Your task to perform on an android device: open app "Flipkart Online Shopping App" Image 0: 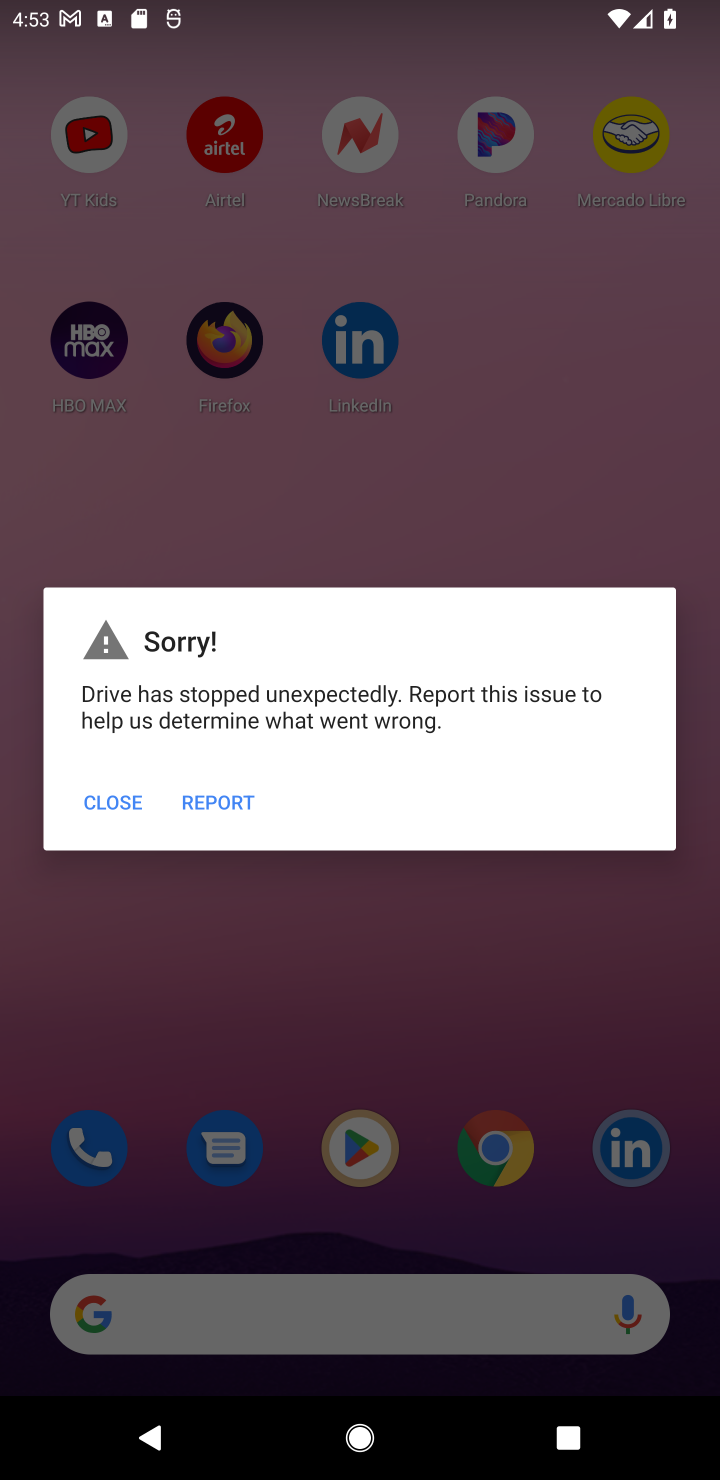
Step 0: press home button
Your task to perform on an android device: open app "Flipkart Online Shopping App" Image 1: 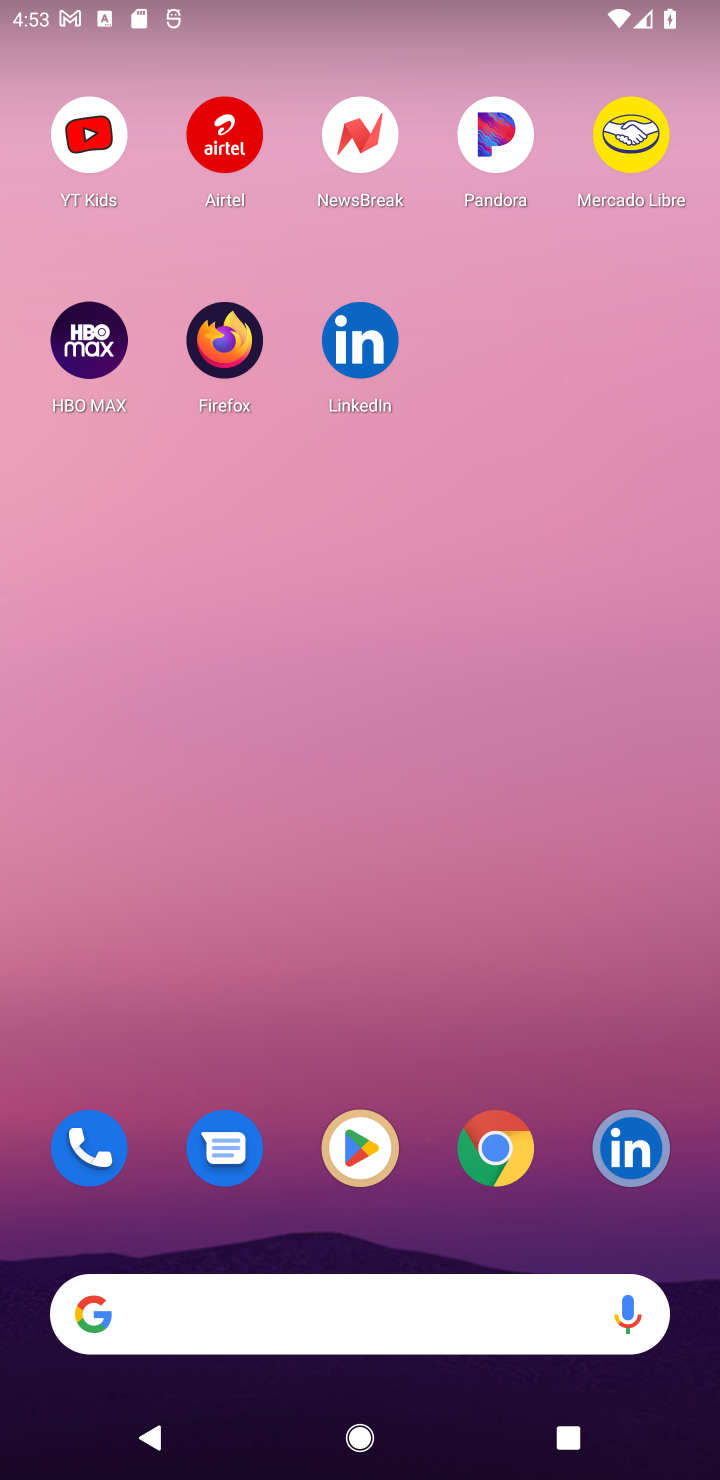
Step 1: click (356, 1157)
Your task to perform on an android device: open app "Flipkart Online Shopping App" Image 2: 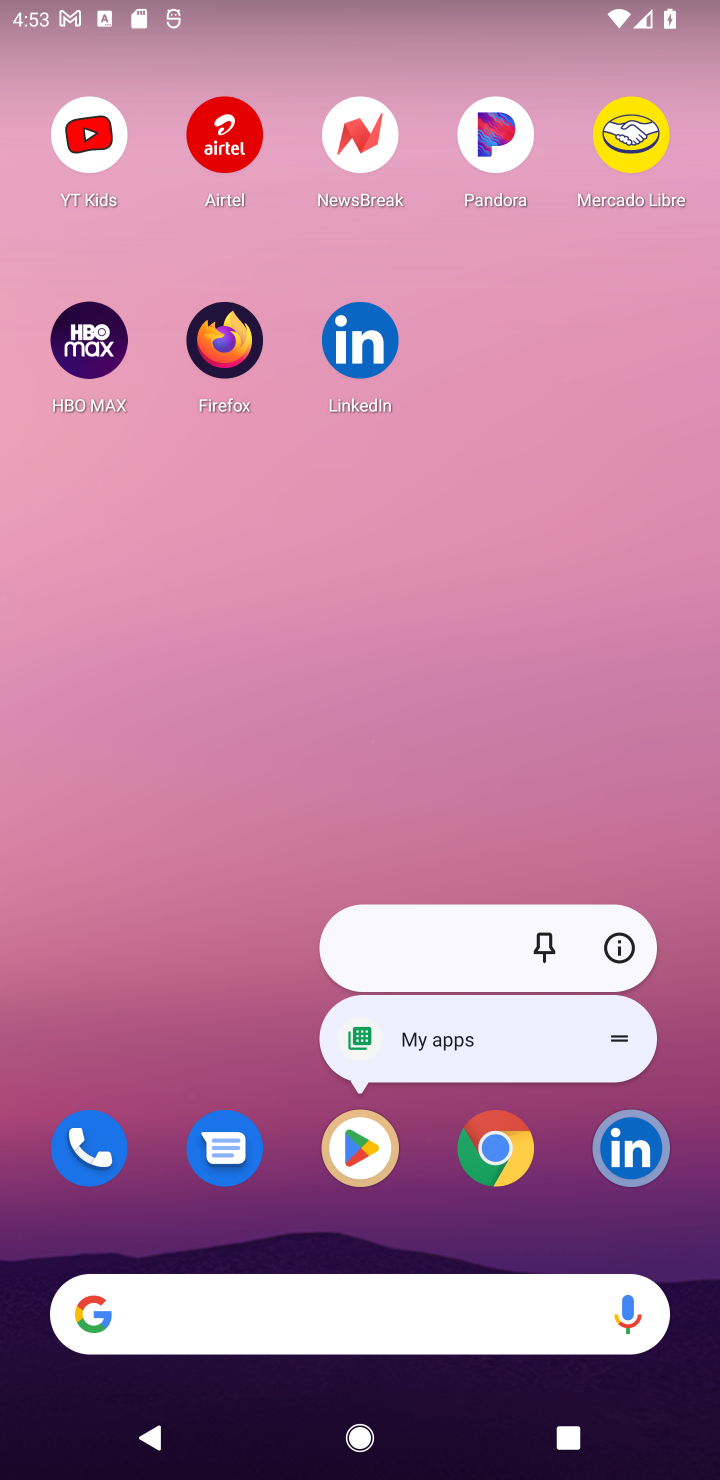
Step 2: click (359, 1156)
Your task to perform on an android device: open app "Flipkart Online Shopping App" Image 3: 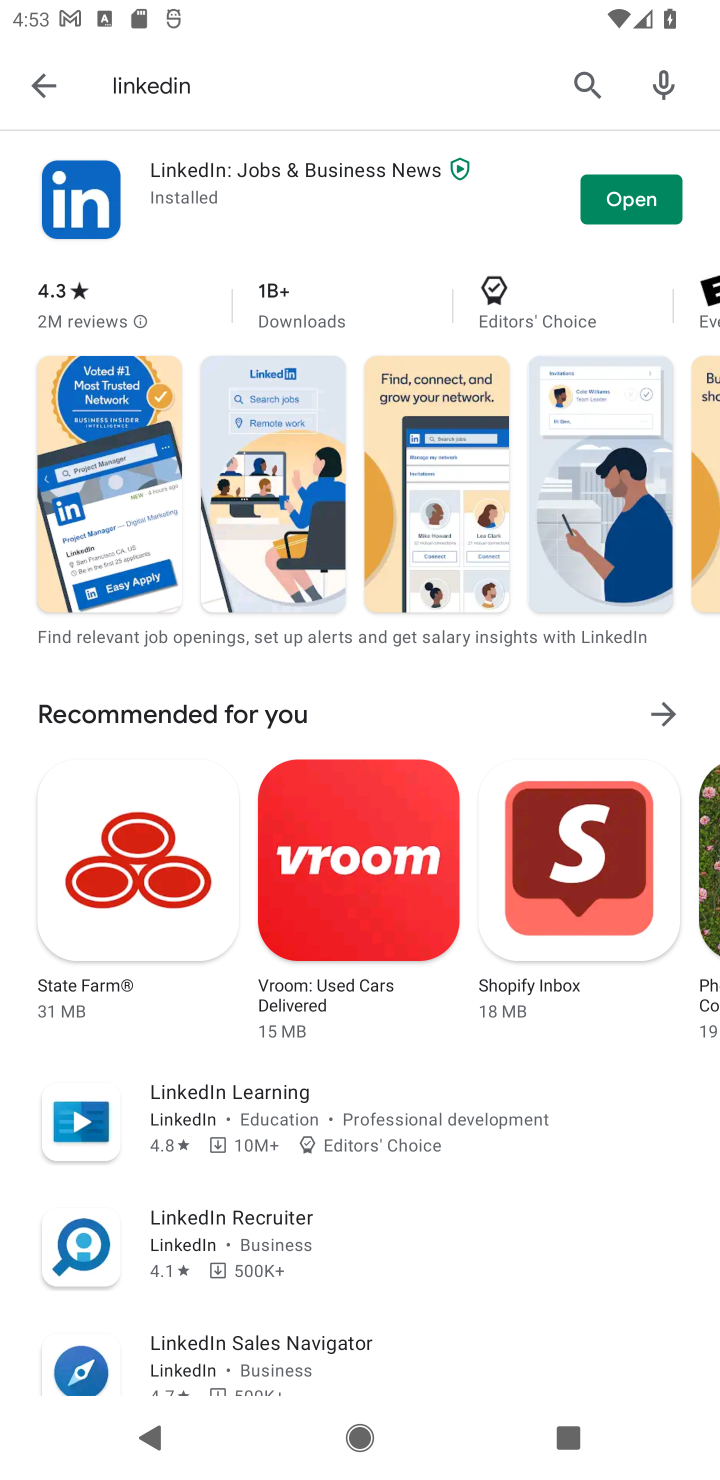
Step 3: click (581, 76)
Your task to perform on an android device: open app "Flipkart Online Shopping App" Image 4: 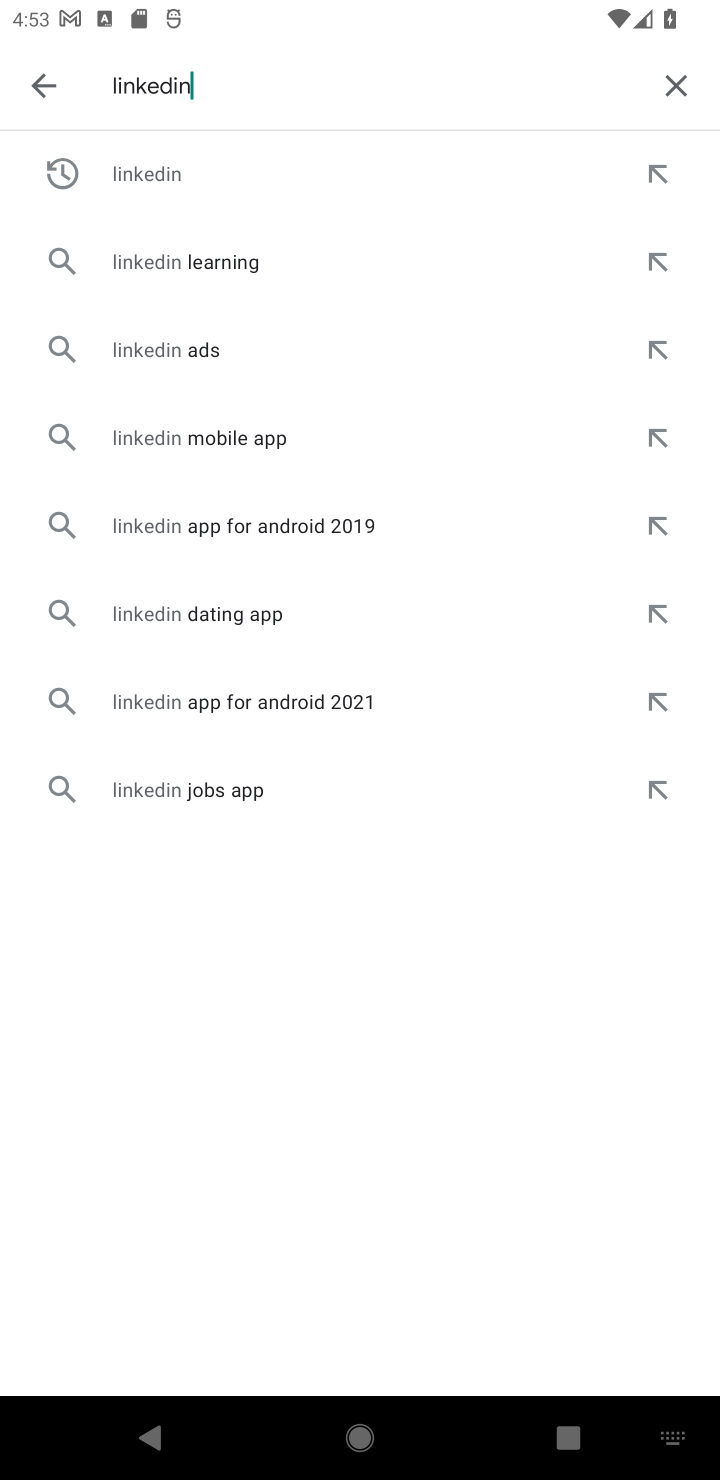
Step 4: click (675, 80)
Your task to perform on an android device: open app "Flipkart Online Shopping App" Image 5: 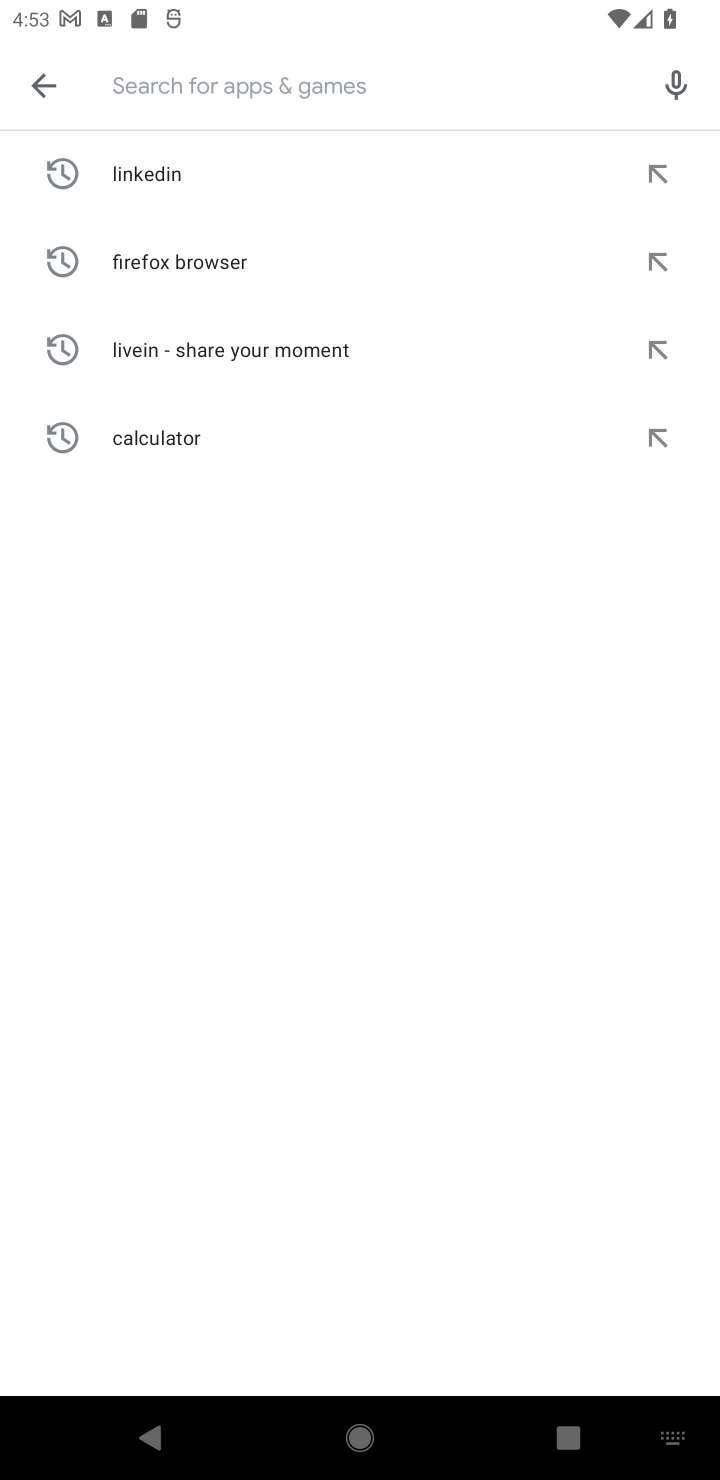
Step 5: type "Flipkart Online Shopping App"
Your task to perform on an android device: open app "Flipkart Online Shopping App" Image 6: 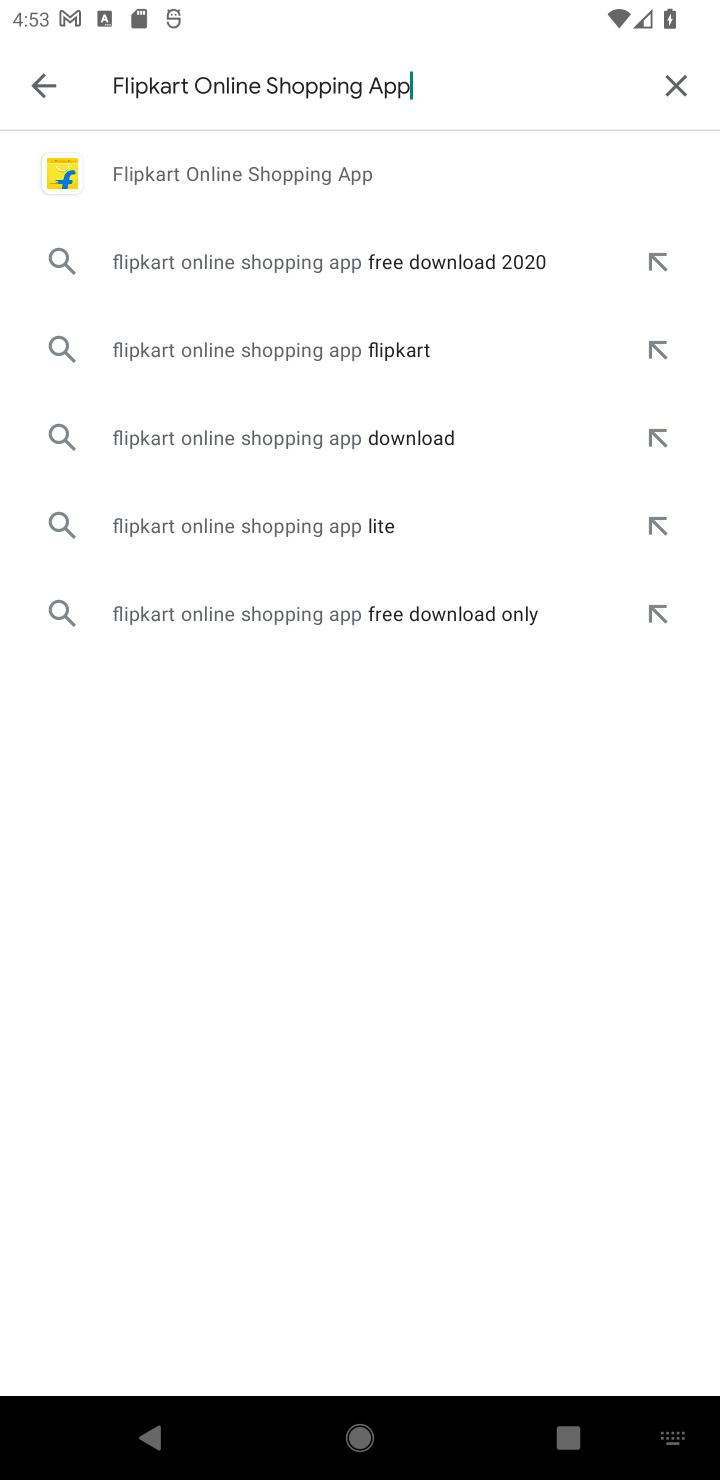
Step 6: click (309, 167)
Your task to perform on an android device: open app "Flipkart Online Shopping App" Image 7: 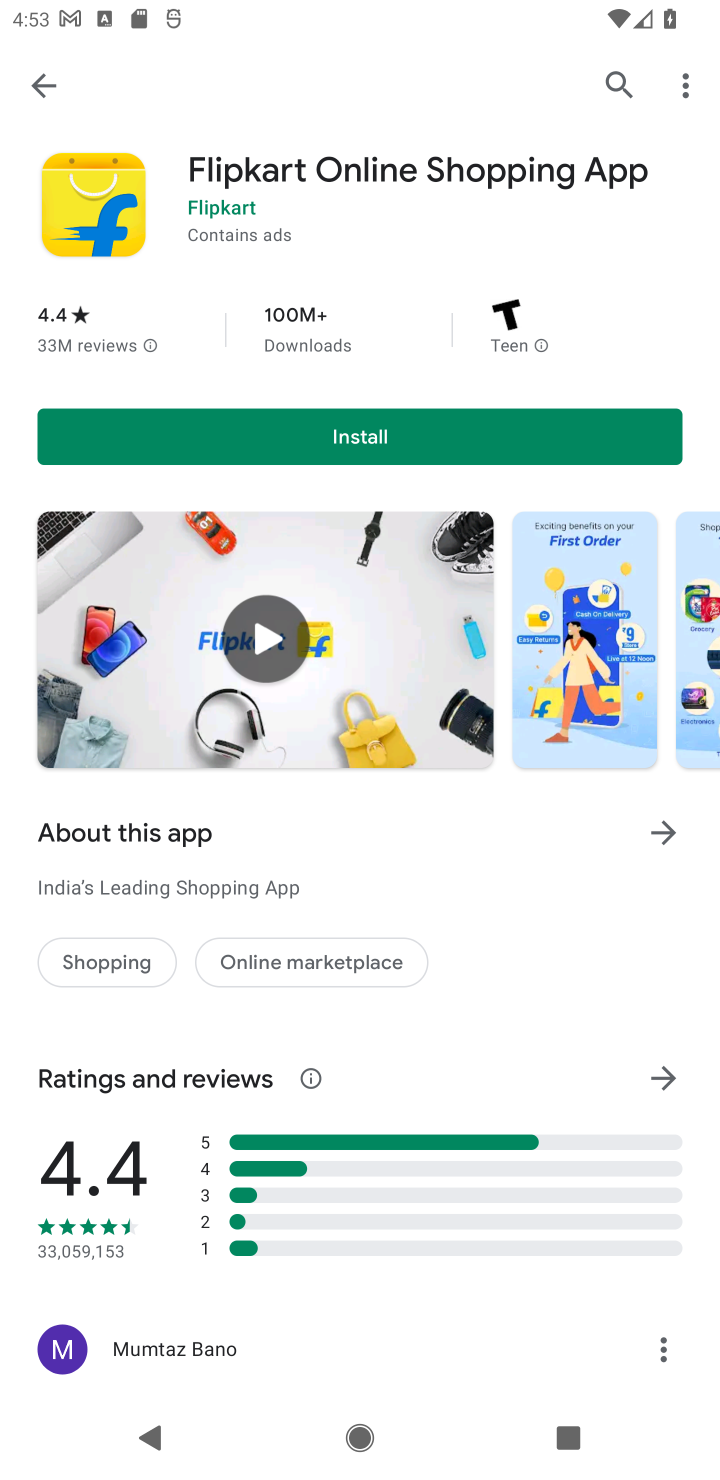
Step 7: task complete